Your task to perform on an android device: Open calendar and show me the first week of next month Image 0: 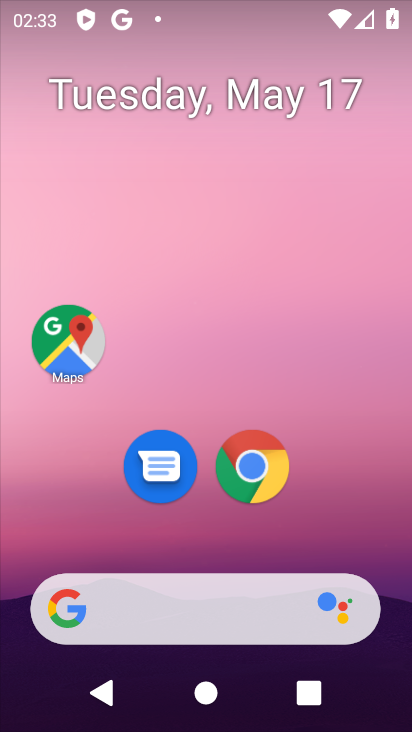
Step 0: drag from (348, 462) to (371, 79)
Your task to perform on an android device: Open calendar and show me the first week of next month Image 1: 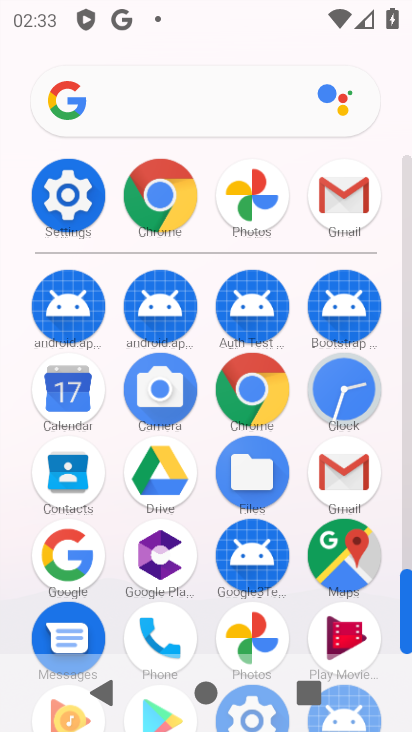
Step 1: click (83, 403)
Your task to perform on an android device: Open calendar and show me the first week of next month Image 2: 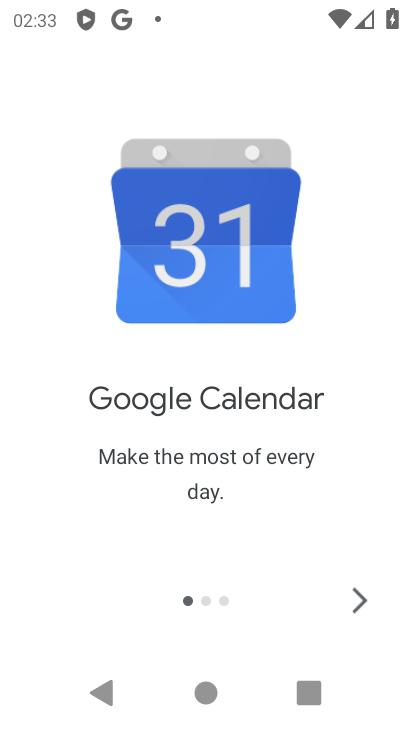
Step 2: click (357, 591)
Your task to perform on an android device: Open calendar and show me the first week of next month Image 3: 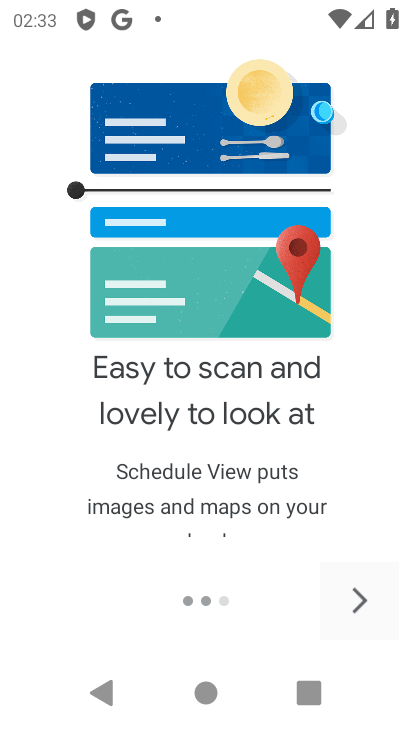
Step 3: click (357, 590)
Your task to perform on an android device: Open calendar and show me the first week of next month Image 4: 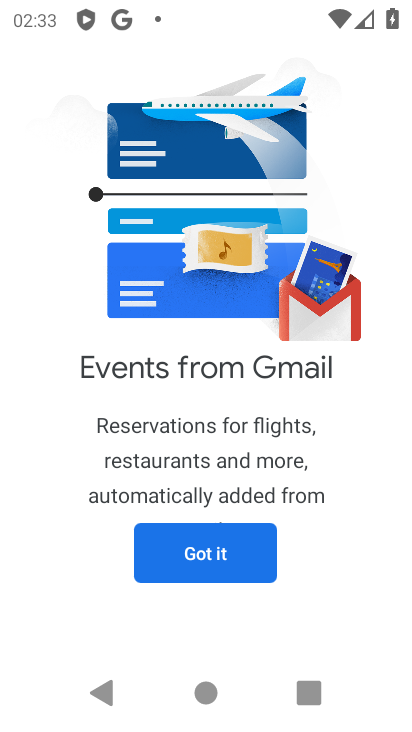
Step 4: click (250, 574)
Your task to perform on an android device: Open calendar and show me the first week of next month Image 5: 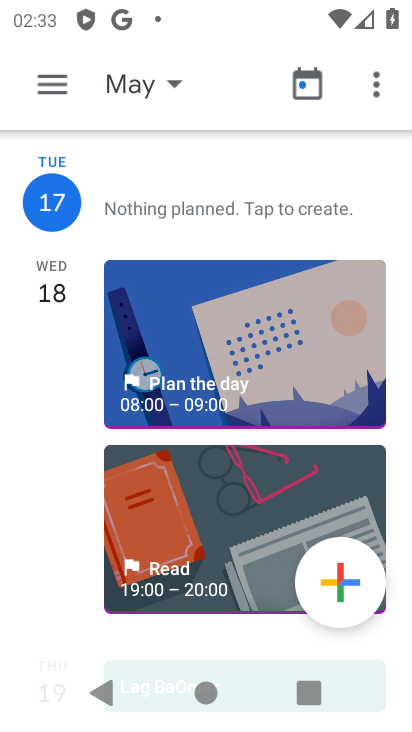
Step 5: click (67, 82)
Your task to perform on an android device: Open calendar and show me the first week of next month Image 6: 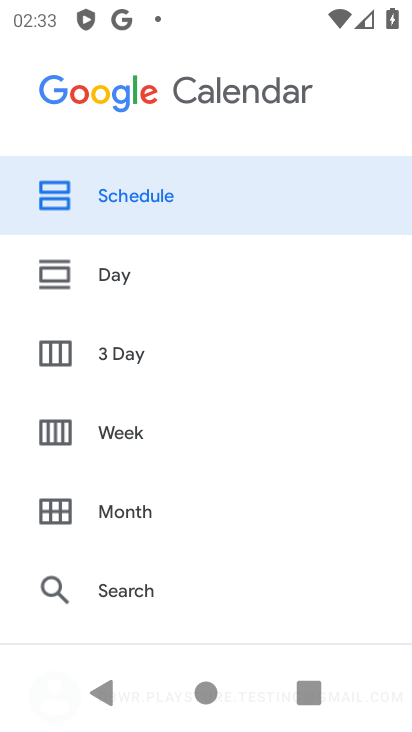
Step 6: click (117, 438)
Your task to perform on an android device: Open calendar and show me the first week of next month Image 7: 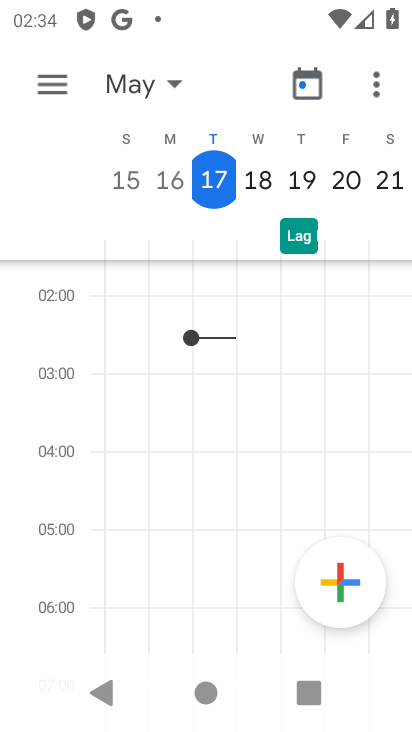
Step 7: task complete